Your task to perform on an android device: Open Youtube and go to the subscriptions tab Image 0: 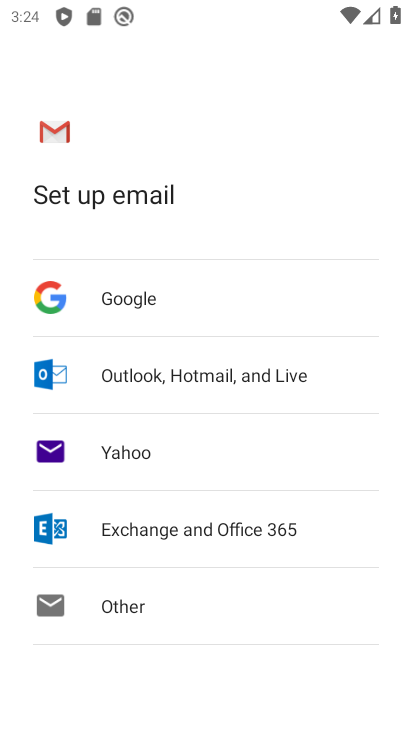
Step 0: press home button
Your task to perform on an android device: Open Youtube and go to the subscriptions tab Image 1: 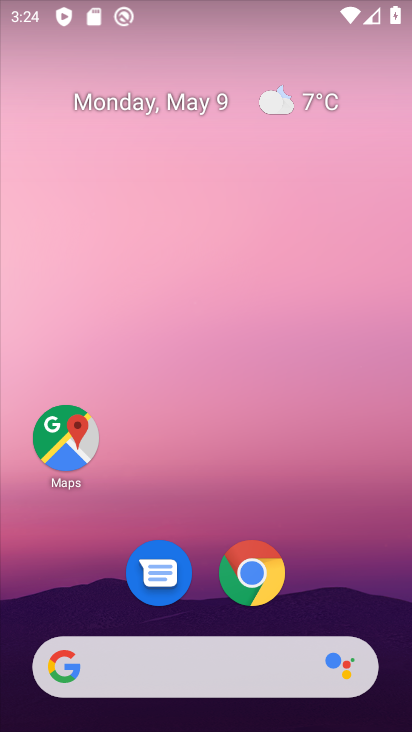
Step 1: drag from (379, 588) to (338, 24)
Your task to perform on an android device: Open Youtube and go to the subscriptions tab Image 2: 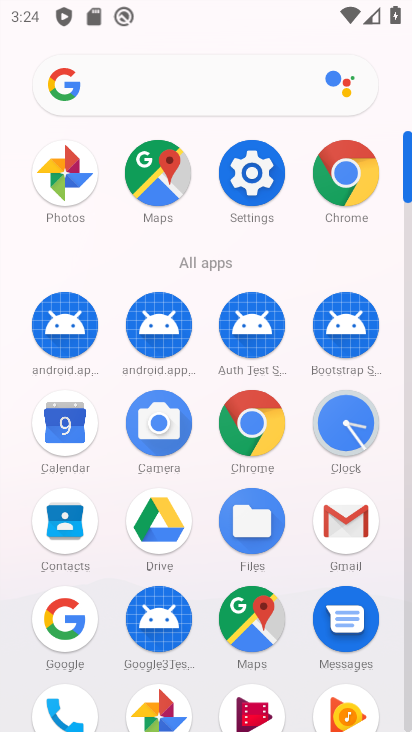
Step 2: click (406, 589)
Your task to perform on an android device: Open Youtube and go to the subscriptions tab Image 3: 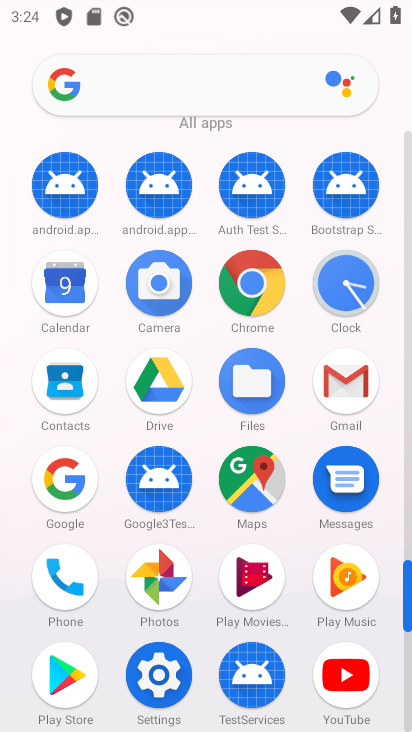
Step 3: click (350, 677)
Your task to perform on an android device: Open Youtube and go to the subscriptions tab Image 4: 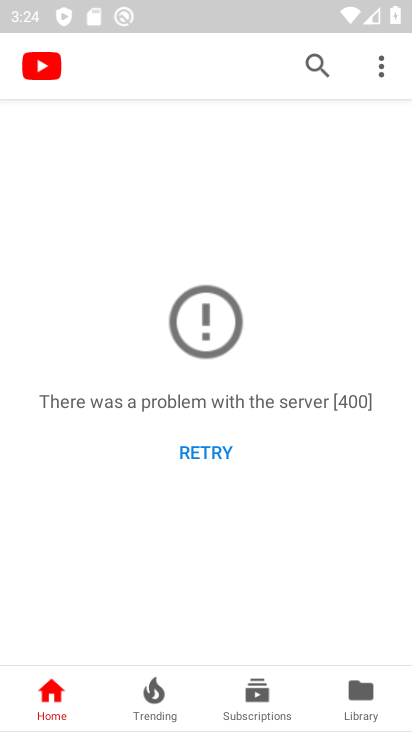
Step 4: click (247, 692)
Your task to perform on an android device: Open Youtube and go to the subscriptions tab Image 5: 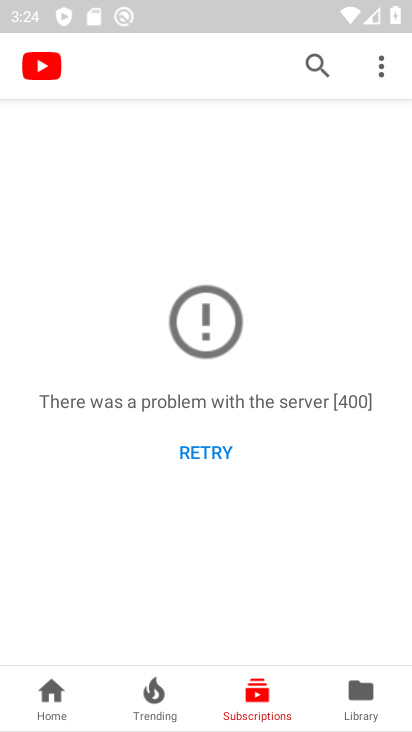
Step 5: task complete